Your task to perform on an android device: allow notifications from all sites in the chrome app Image 0: 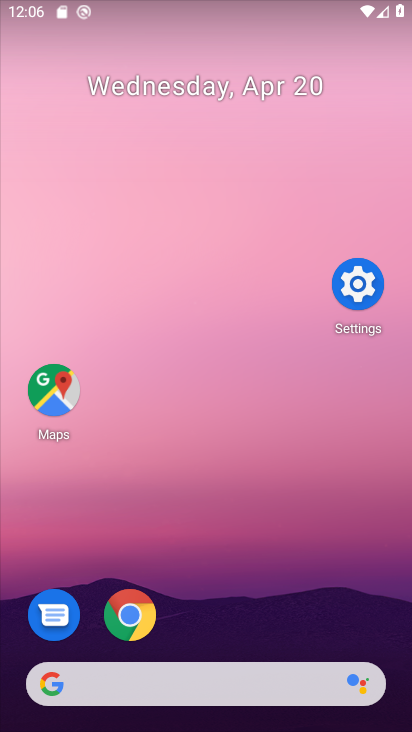
Step 0: click (240, 294)
Your task to perform on an android device: allow notifications from all sites in the chrome app Image 1: 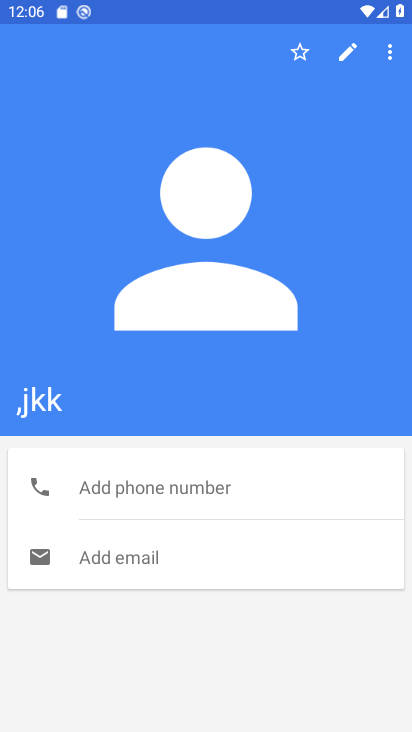
Step 1: drag from (216, 529) to (254, 391)
Your task to perform on an android device: allow notifications from all sites in the chrome app Image 2: 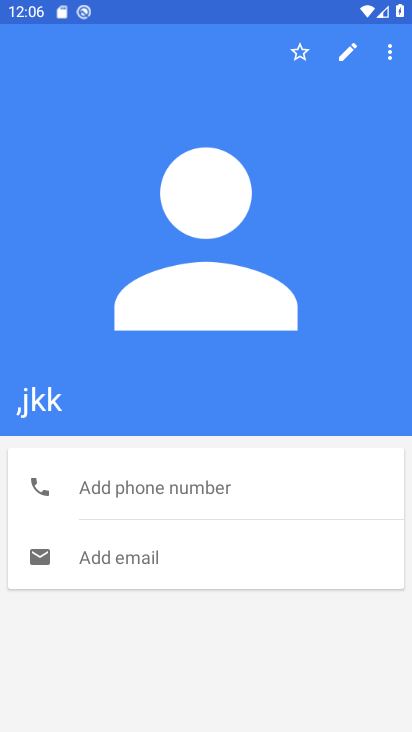
Step 2: drag from (204, 639) to (268, 350)
Your task to perform on an android device: allow notifications from all sites in the chrome app Image 3: 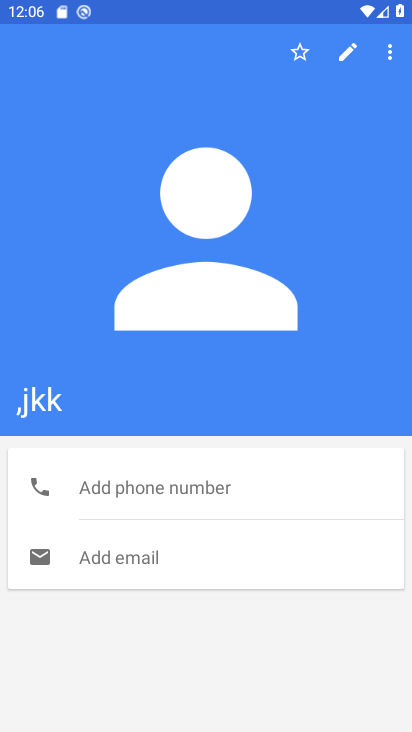
Step 3: drag from (235, 631) to (233, 494)
Your task to perform on an android device: allow notifications from all sites in the chrome app Image 4: 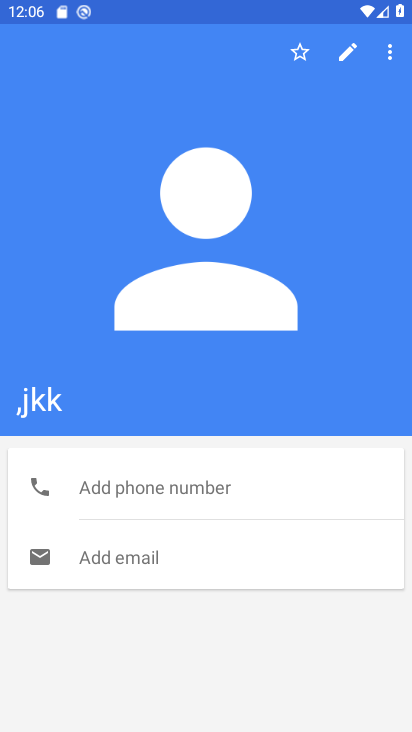
Step 4: drag from (202, 646) to (248, 509)
Your task to perform on an android device: allow notifications from all sites in the chrome app Image 5: 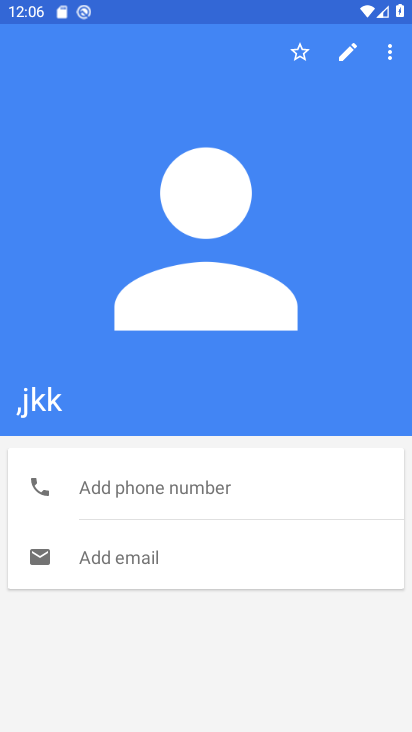
Step 5: drag from (181, 620) to (270, 413)
Your task to perform on an android device: allow notifications from all sites in the chrome app Image 6: 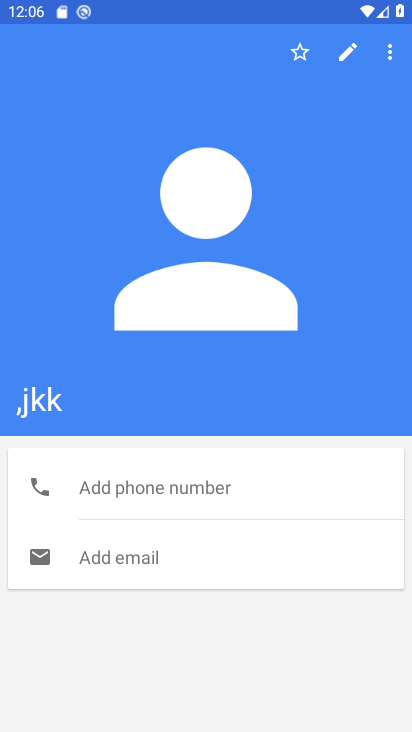
Step 6: drag from (250, 219) to (346, 351)
Your task to perform on an android device: allow notifications from all sites in the chrome app Image 7: 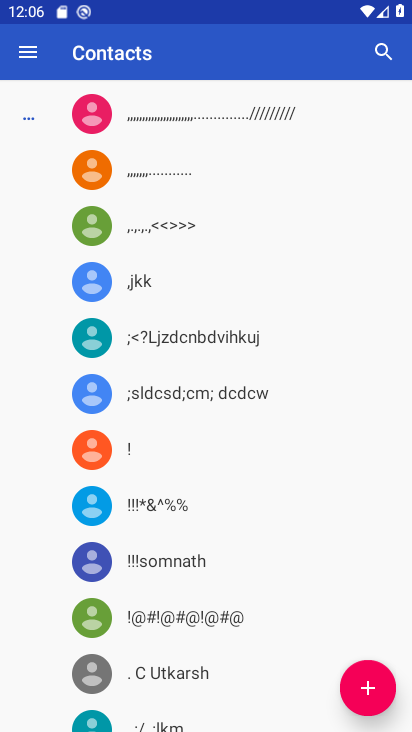
Step 7: drag from (202, 413) to (260, 669)
Your task to perform on an android device: allow notifications from all sites in the chrome app Image 8: 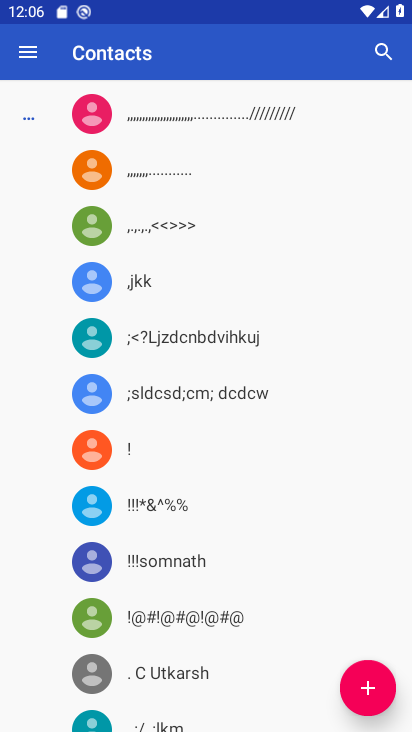
Step 8: drag from (104, 326) to (234, 479)
Your task to perform on an android device: allow notifications from all sites in the chrome app Image 9: 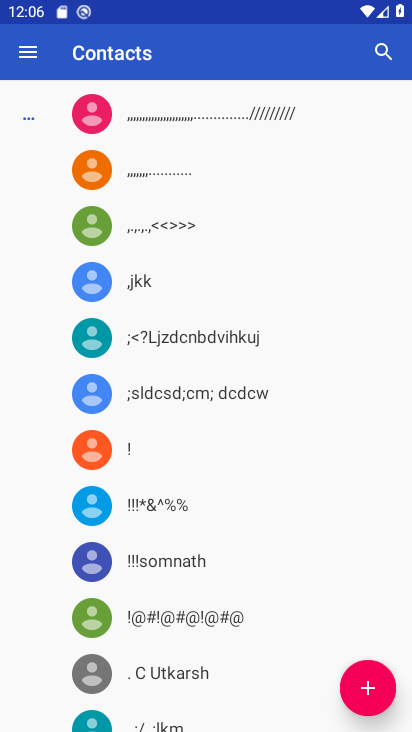
Step 9: drag from (240, 231) to (286, 536)
Your task to perform on an android device: allow notifications from all sites in the chrome app Image 10: 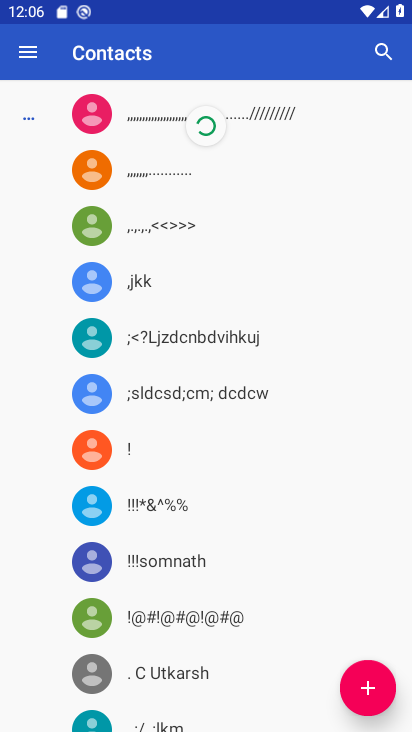
Step 10: drag from (177, 609) to (245, 295)
Your task to perform on an android device: allow notifications from all sites in the chrome app Image 11: 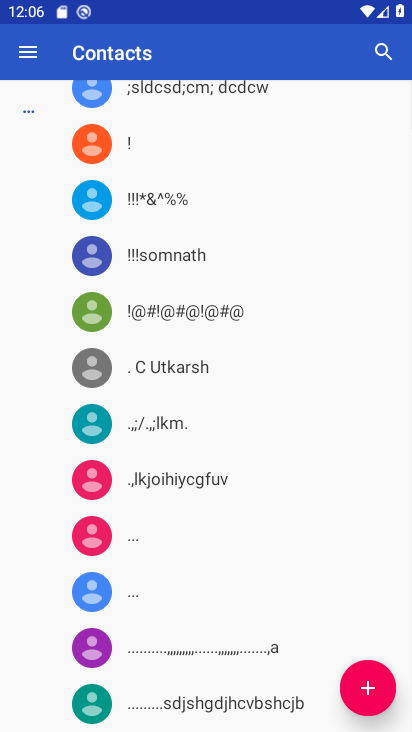
Step 11: press home button
Your task to perform on an android device: allow notifications from all sites in the chrome app Image 12: 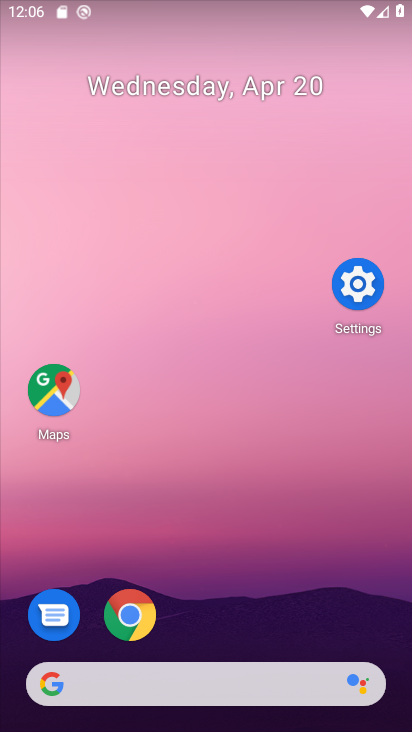
Step 12: drag from (208, 613) to (243, 348)
Your task to perform on an android device: allow notifications from all sites in the chrome app Image 13: 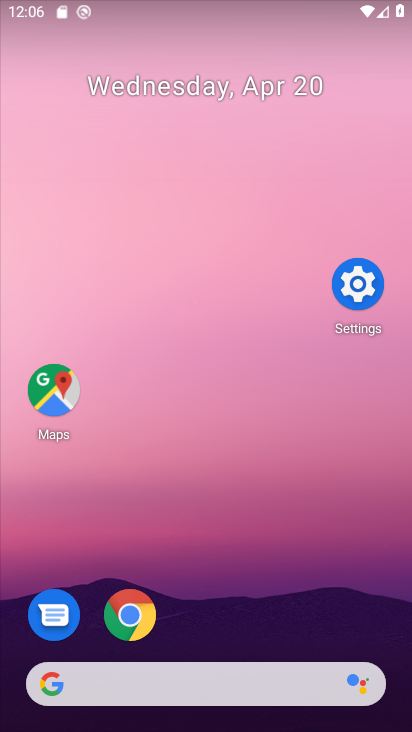
Step 13: drag from (210, 435) to (237, 261)
Your task to perform on an android device: allow notifications from all sites in the chrome app Image 14: 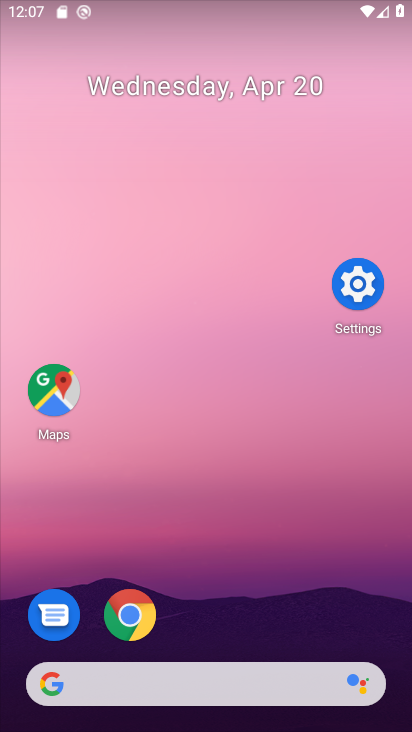
Step 14: drag from (224, 641) to (268, 178)
Your task to perform on an android device: allow notifications from all sites in the chrome app Image 15: 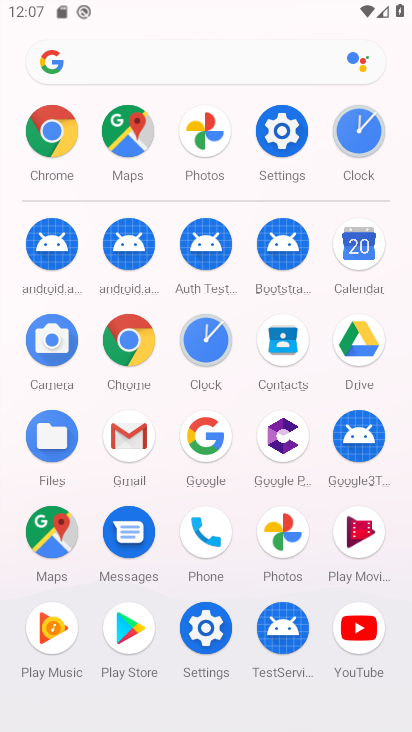
Step 15: click (118, 338)
Your task to perform on an android device: allow notifications from all sites in the chrome app Image 16: 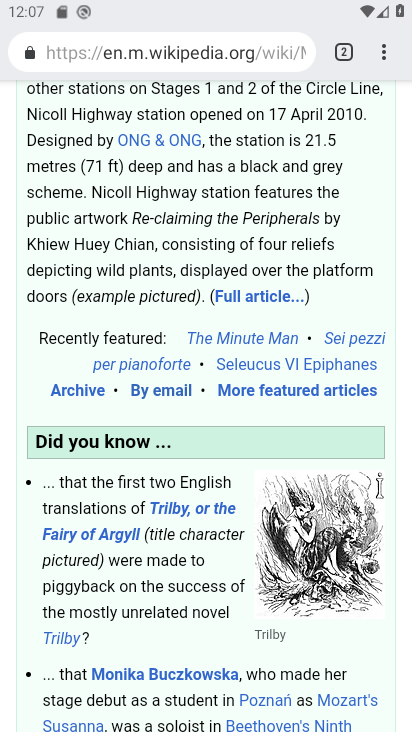
Step 16: drag from (205, 294) to (290, 715)
Your task to perform on an android device: allow notifications from all sites in the chrome app Image 17: 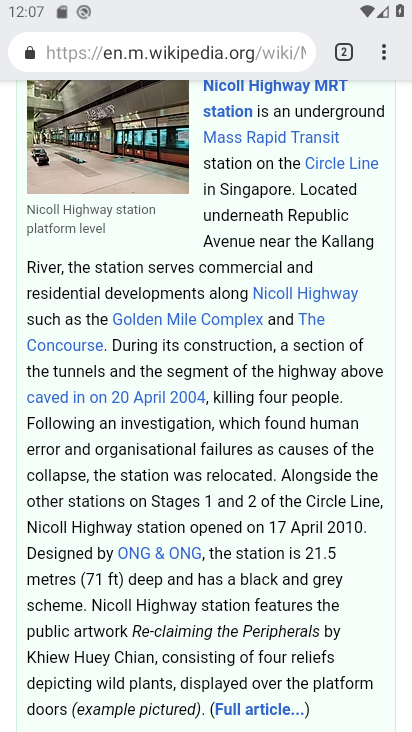
Step 17: drag from (242, 252) to (274, 647)
Your task to perform on an android device: allow notifications from all sites in the chrome app Image 18: 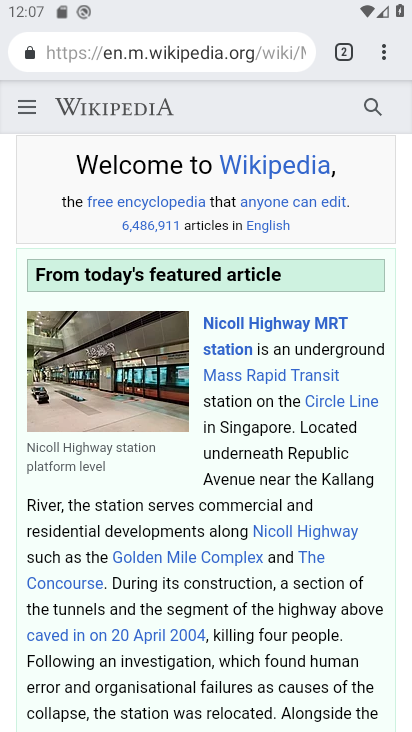
Step 18: drag from (218, 336) to (269, 630)
Your task to perform on an android device: allow notifications from all sites in the chrome app Image 19: 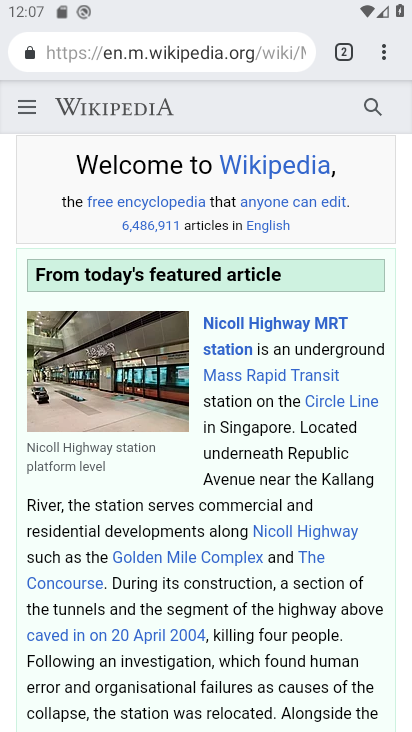
Step 19: drag from (244, 654) to (279, 381)
Your task to perform on an android device: allow notifications from all sites in the chrome app Image 20: 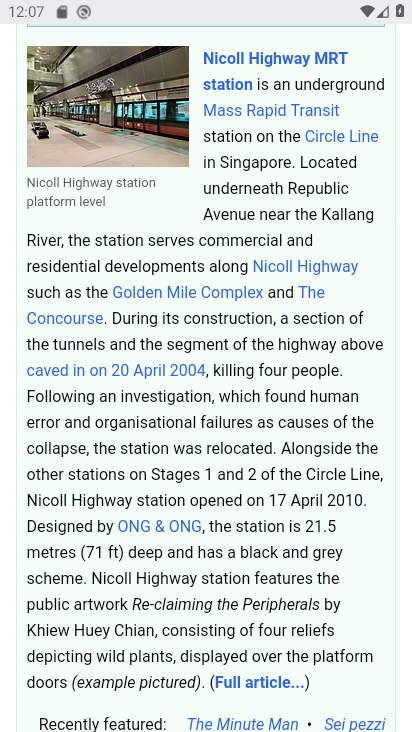
Step 20: drag from (233, 618) to (273, 305)
Your task to perform on an android device: allow notifications from all sites in the chrome app Image 21: 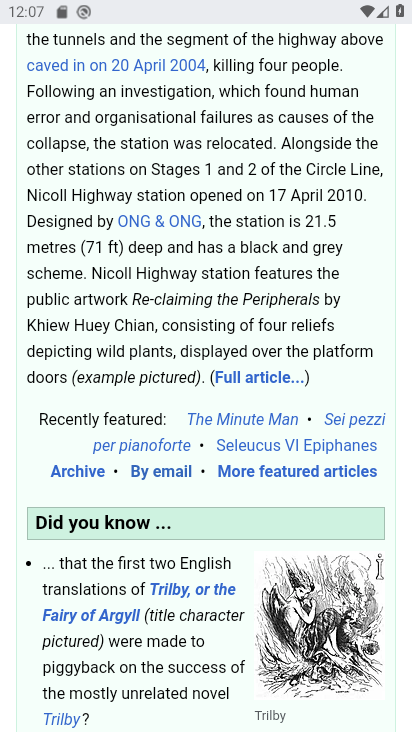
Step 21: drag from (241, 184) to (235, 699)
Your task to perform on an android device: allow notifications from all sites in the chrome app Image 22: 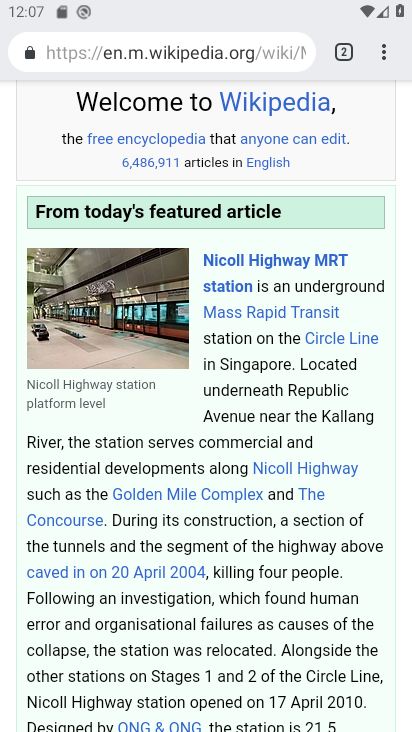
Step 22: drag from (386, 42) to (244, 650)
Your task to perform on an android device: allow notifications from all sites in the chrome app Image 23: 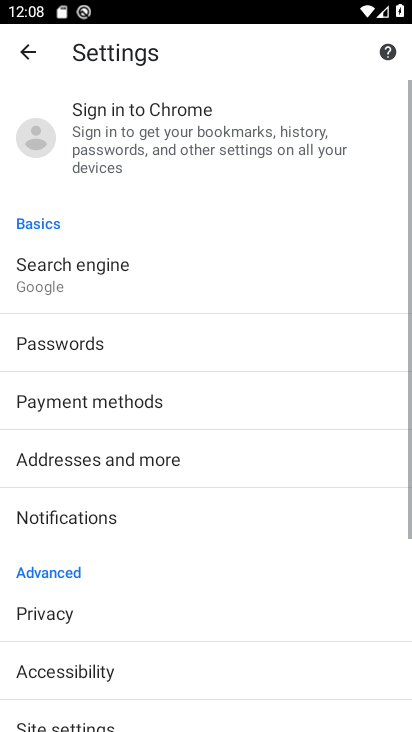
Step 23: drag from (197, 616) to (257, 160)
Your task to perform on an android device: allow notifications from all sites in the chrome app Image 24: 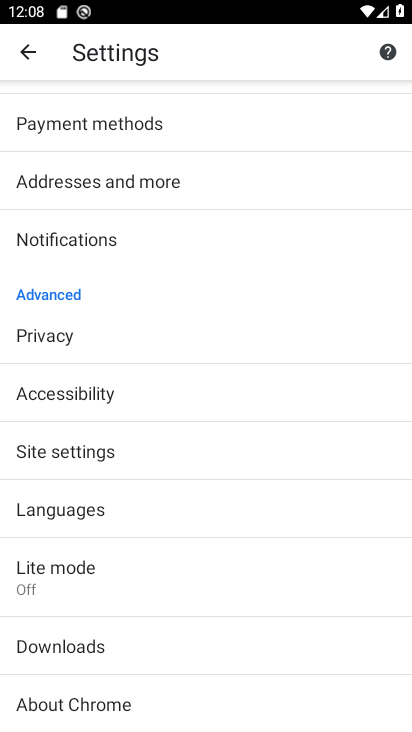
Step 24: click (122, 450)
Your task to perform on an android device: allow notifications from all sites in the chrome app Image 25: 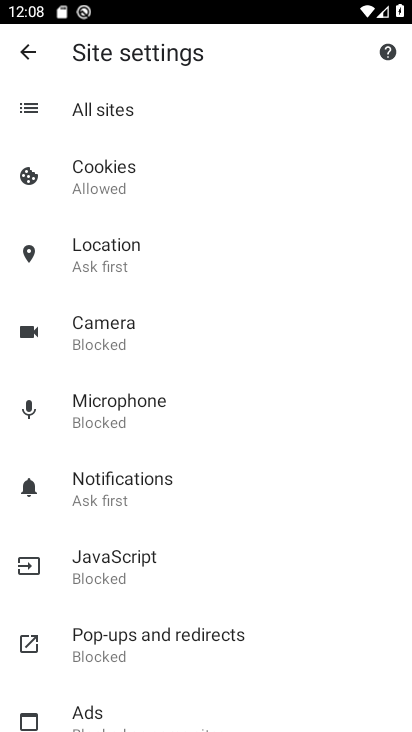
Step 25: click (158, 501)
Your task to perform on an android device: allow notifications from all sites in the chrome app Image 26: 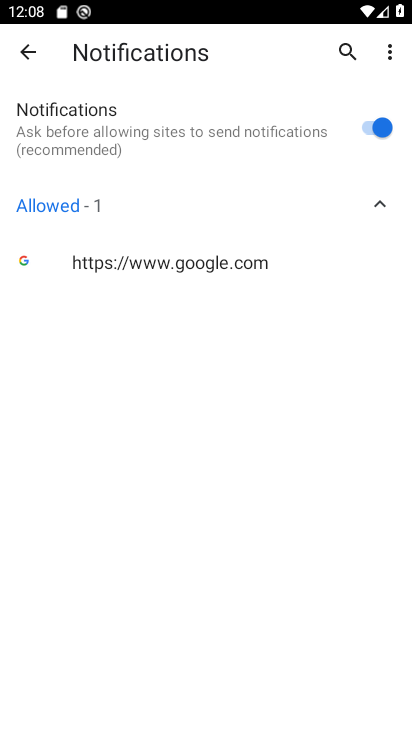
Step 26: task complete